Your task to perform on an android device: Go to Yahoo.com Image 0: 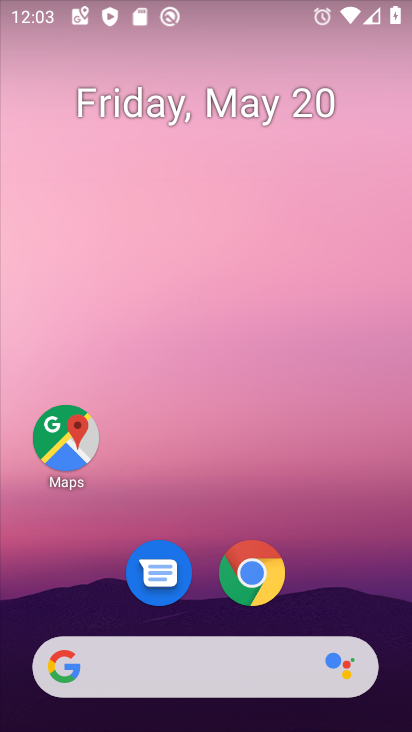
Step 0: drag from (196, 607) to (205, 33)
Your task to perform on an android device: Go to Yahoo.com Image 1: 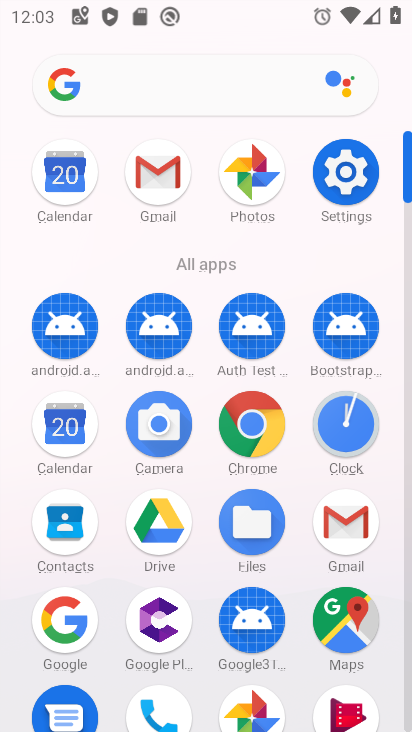
Step 1: click (262, 418)
Your task to perform on an android device: Go to Yahoo.com Image 2: 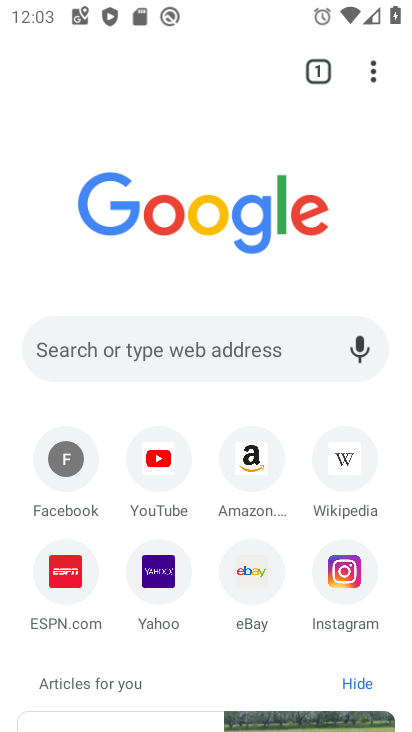
Step 2: click (157, 578)
Your task to perform on an android device: Go to Yahoo.com Image 3: 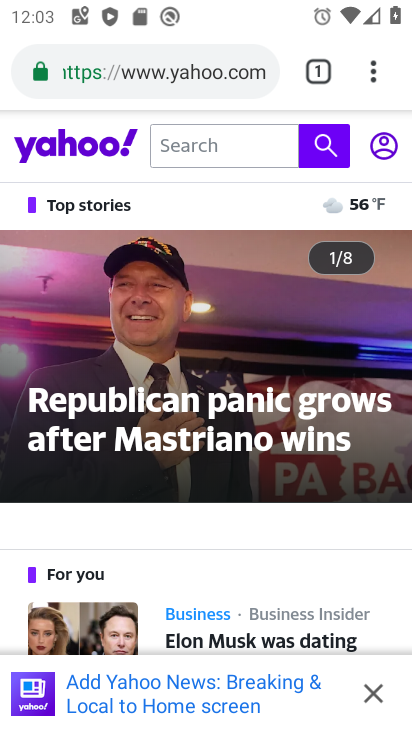
Step 3: task complete